Your task to perform on an android device: Open Amazon Image 0: 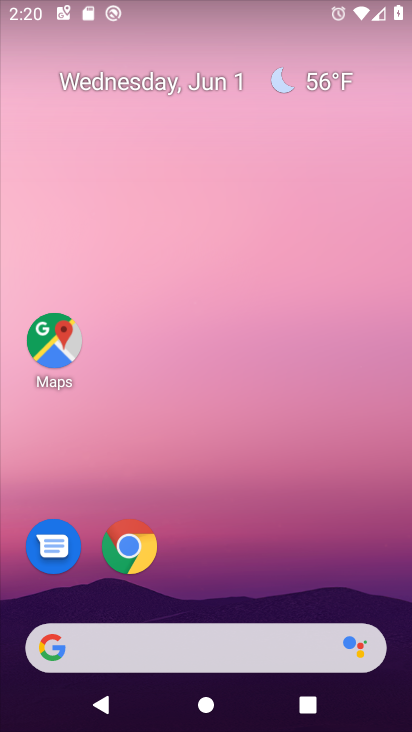
Step 0: click (127, 540)
Your task to perform on an android device: Open Amazon Image 1: 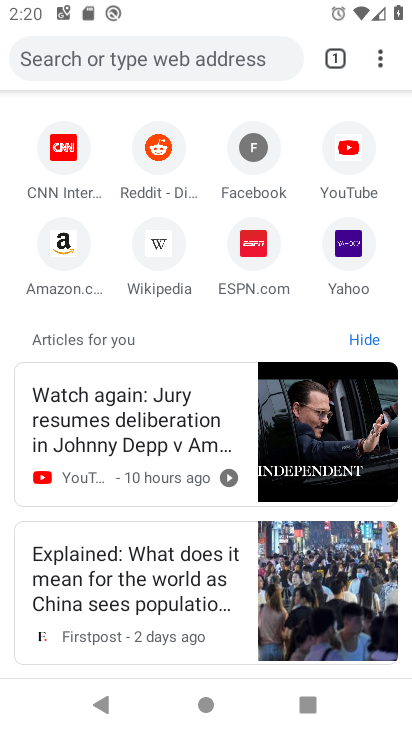
Step 1: click (56, 260)
Your task to perform on an android device: Open Amazon Image 2: 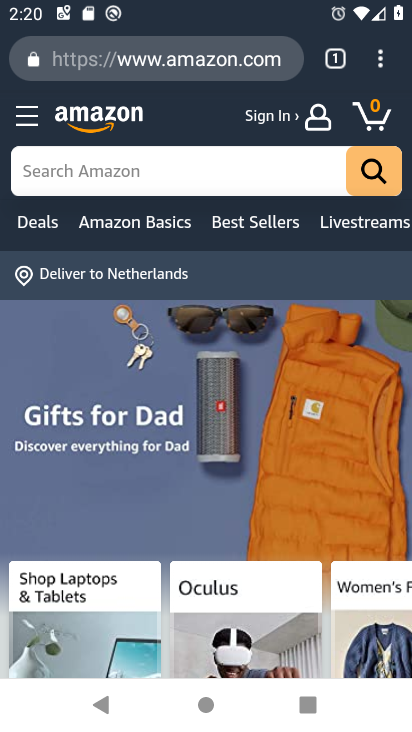
Step 2: task complete